Your task to perform on an android device: Open calendar and show me the first week of next month Image 0: 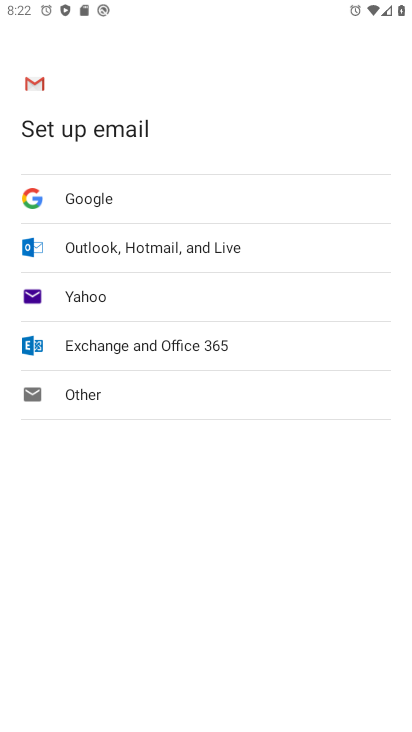
Step 0: press home button
Your task to perform on an android device: Open calendar and show me the first week of next month Image 1: 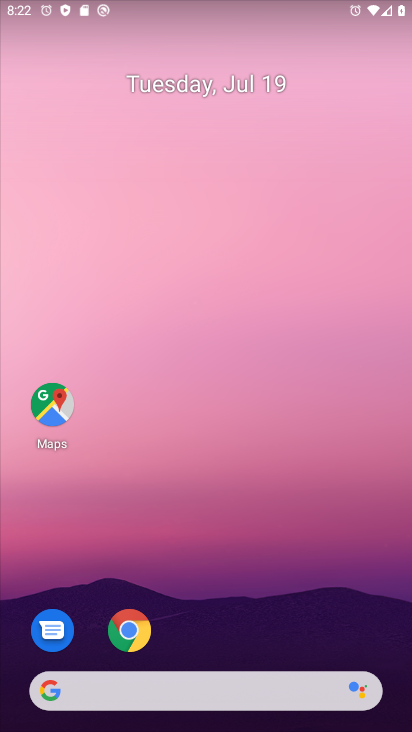
Step 1: drag from (226, 482) to (257, 245)
Your task to perform on an android device: Open calendar and show me the first week of next month Image 2: 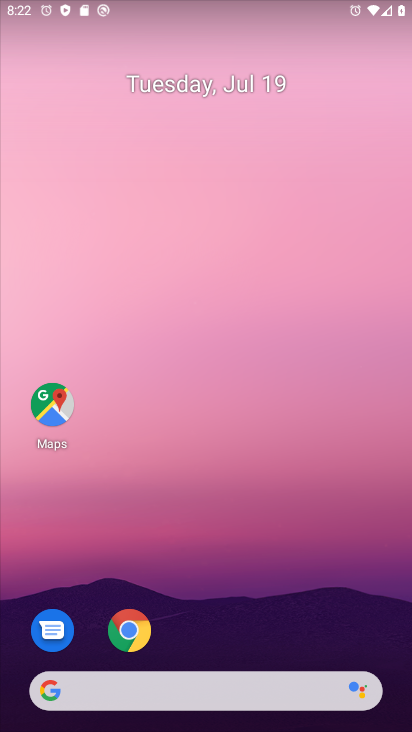
Step 2: drag from (244, 430) to (229, 114)
Your task to perform on an android device: Open calendar and show me the first week of next month Image 3: 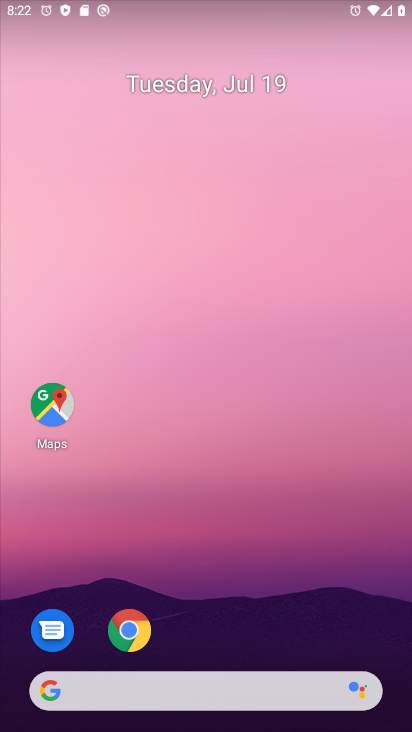
Step 3: drag from (296, 590) to (261, 134)
Your task to perform on an android device: Open calendar and show me the first week of next month Image 4: 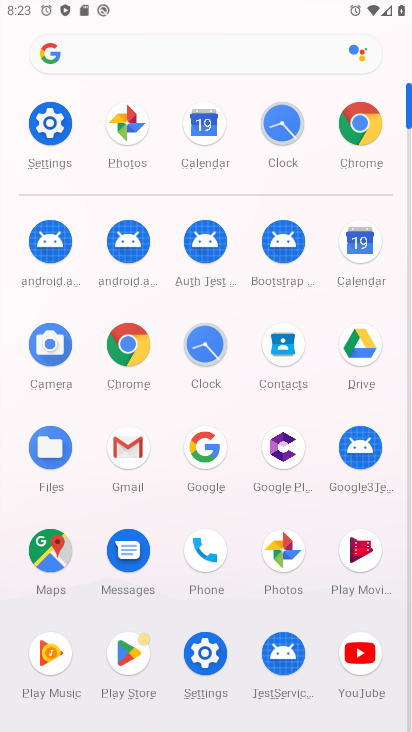
Step 4: click (359, 234)
Your task to perform on an android device: Open calendar and show me the first week of next month Image 5: 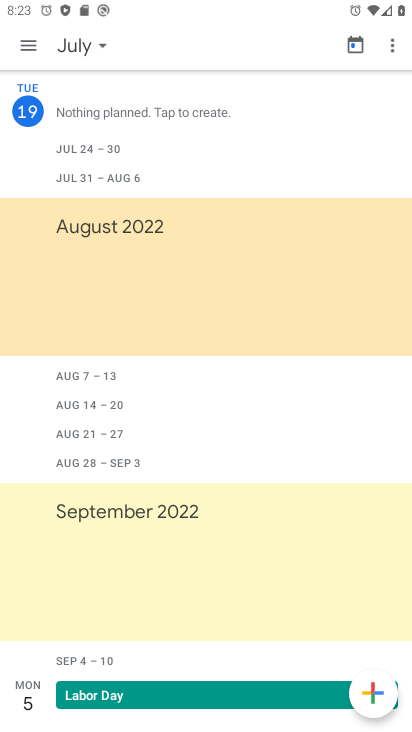
Step 5: task complete